Your task to perform on an android device: Set the phone to "Do not disturb". Image 0: 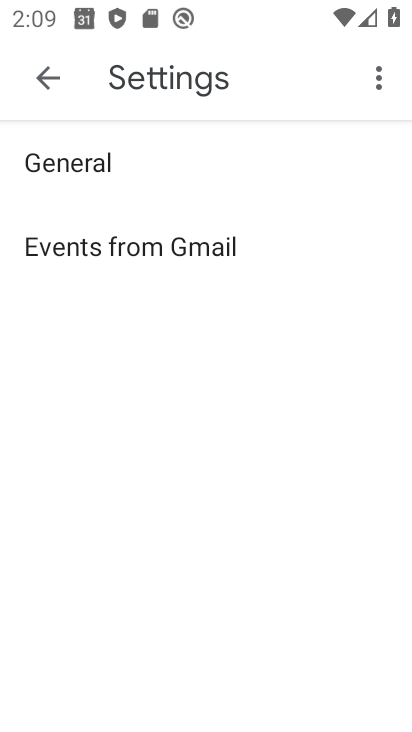
Step 0: press home button
Your task to perform on an android device: Set the phone to "Do not disturb". Image 1: 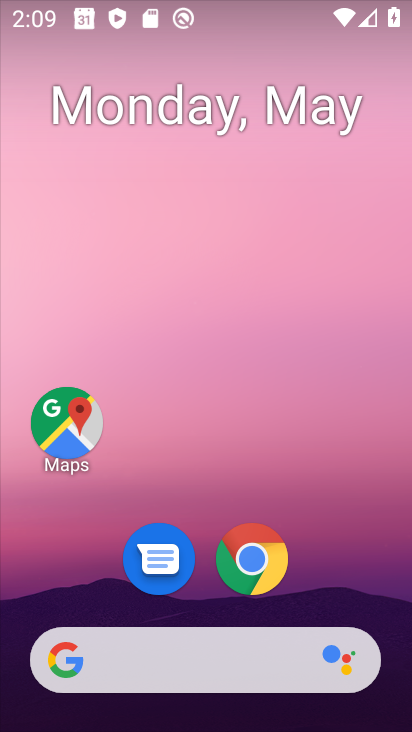
Step 1: drag from (360, 616) to (345, 19)
Your task to perform on an android device: Set the phone to "Do not disturb". Image 2: 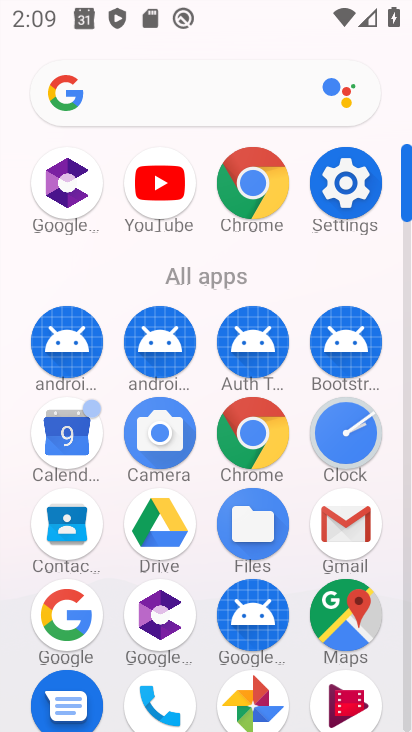
Step 2: click (341, 186)
Your task to perform on an android device: Set the phone to "Do not disturb". Image 3: 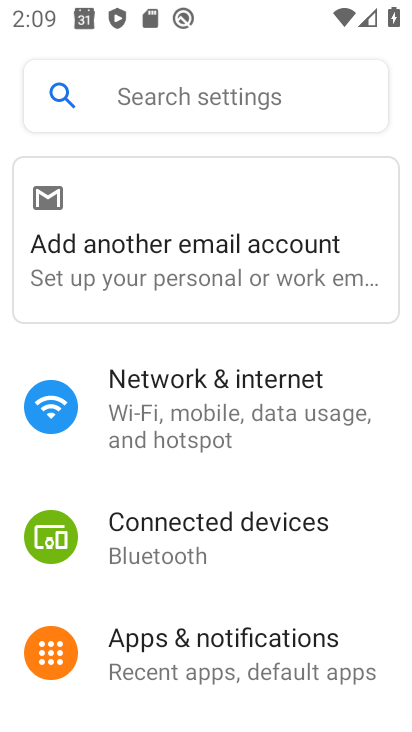
Step 3: drag from (375, 618) to (333, 144)
Your task to perform on an android device: Set the phone to "Do not disturb". Image 4: 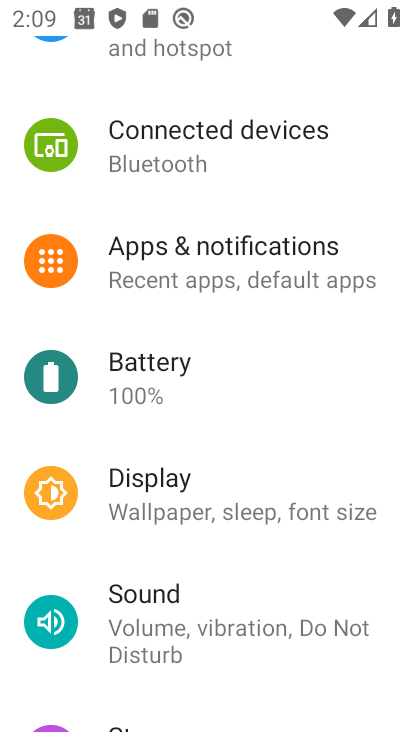
Step 4: click (142, 629)
Your task to perform on an android device: Set the phone to "Do not disturb". Image 5: 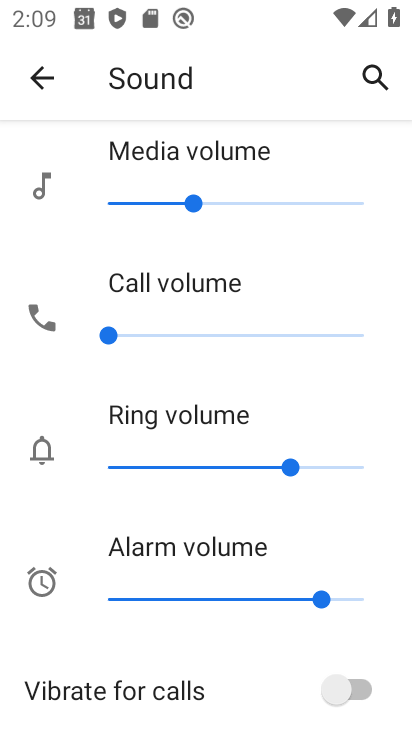
Step 5: drag from (189, 630) to (172, 209)
Your task to perform on an android device: Set the phone to "Do not disturb". Image 6: 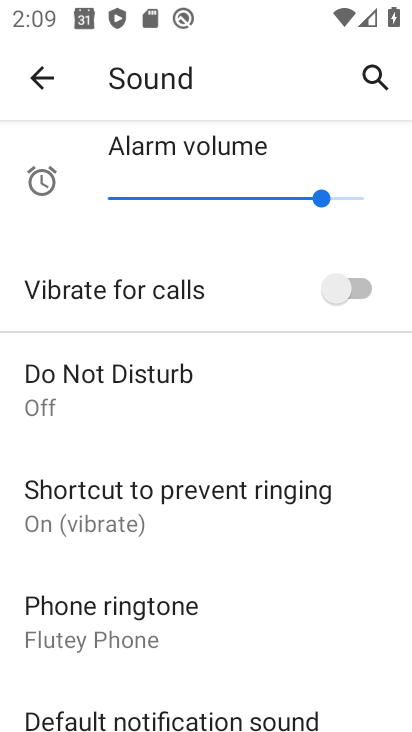
Step 6: click (45, 402)
Your task to perform on an android device: Set the phone to "Do not disturb". Image 7: 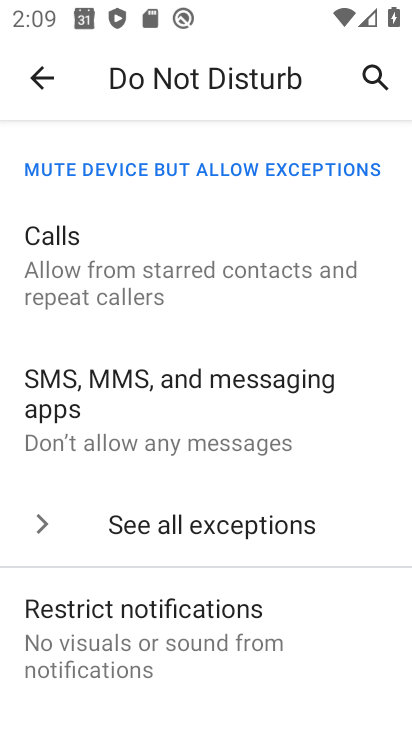
Step 7: drag from (295, 591) to (250, 204)
Your task to perform on an android device: Set the phone to "Do not disturb". Image 8: 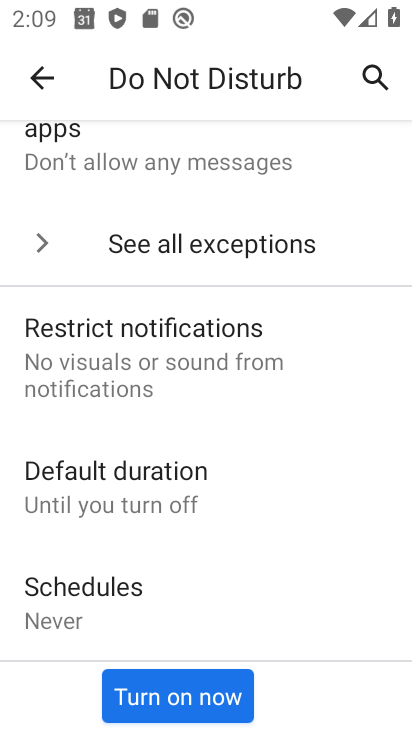
Step 8: click (157, 704)
Your task to perform on an android device: Set the phone to "Do not disturb". Image 9: 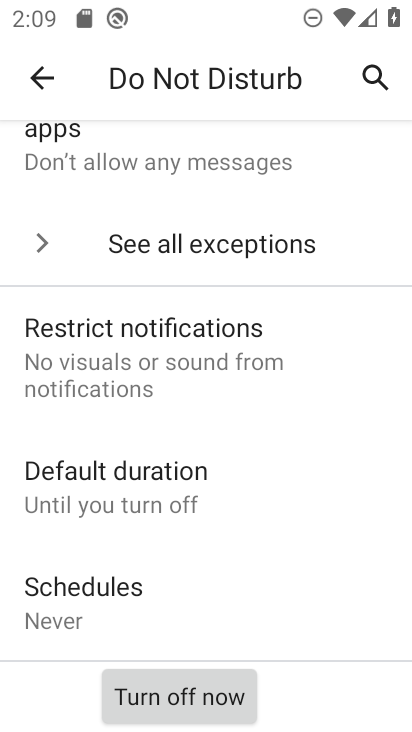
Step 9: task complete